Your task to perform on an android device: Search for "razer deathadder" on costco.com, select the first entry, add it to the cart, then select checkout. Image 0: 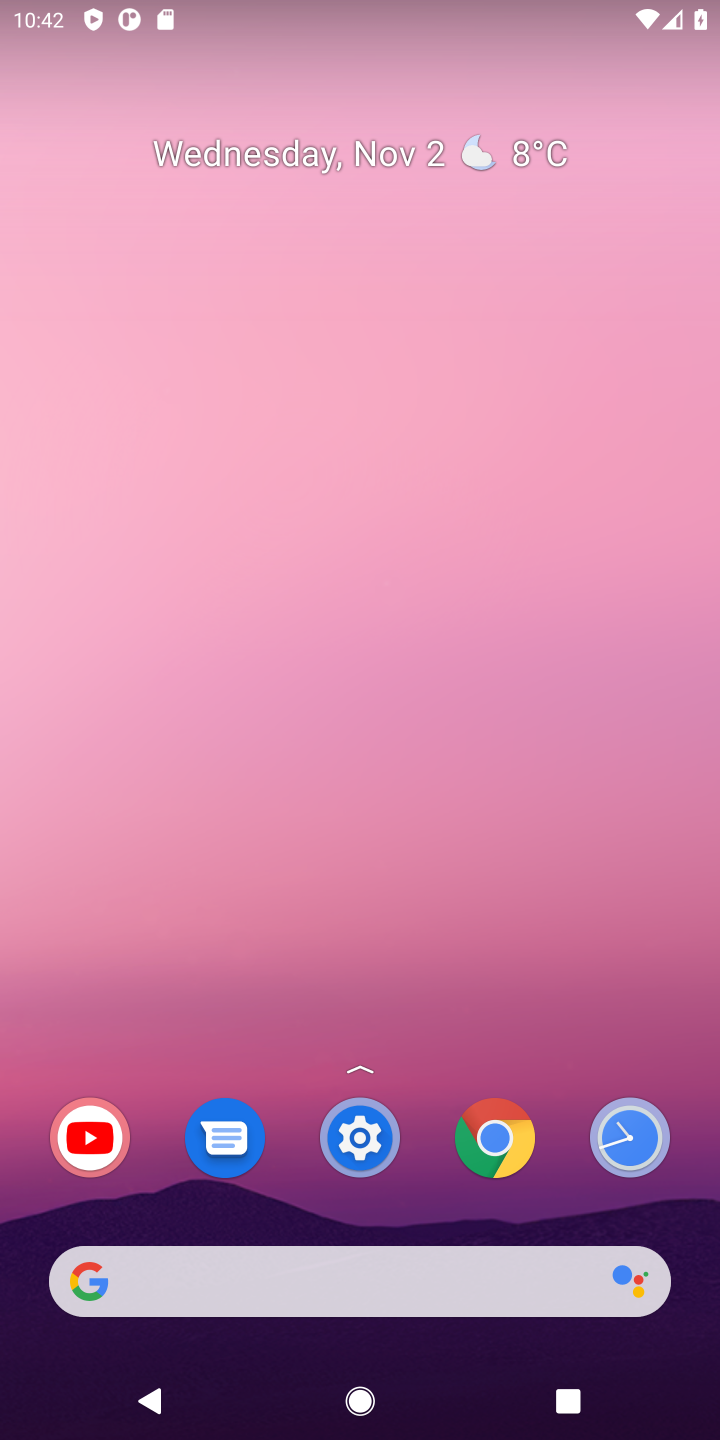
Step 0: click (509, 1127)
Your task to perform on an android device: Search for "razer deathadder" on costco.com, select the first entry, add it to the cart, then select checkout. Image 1: 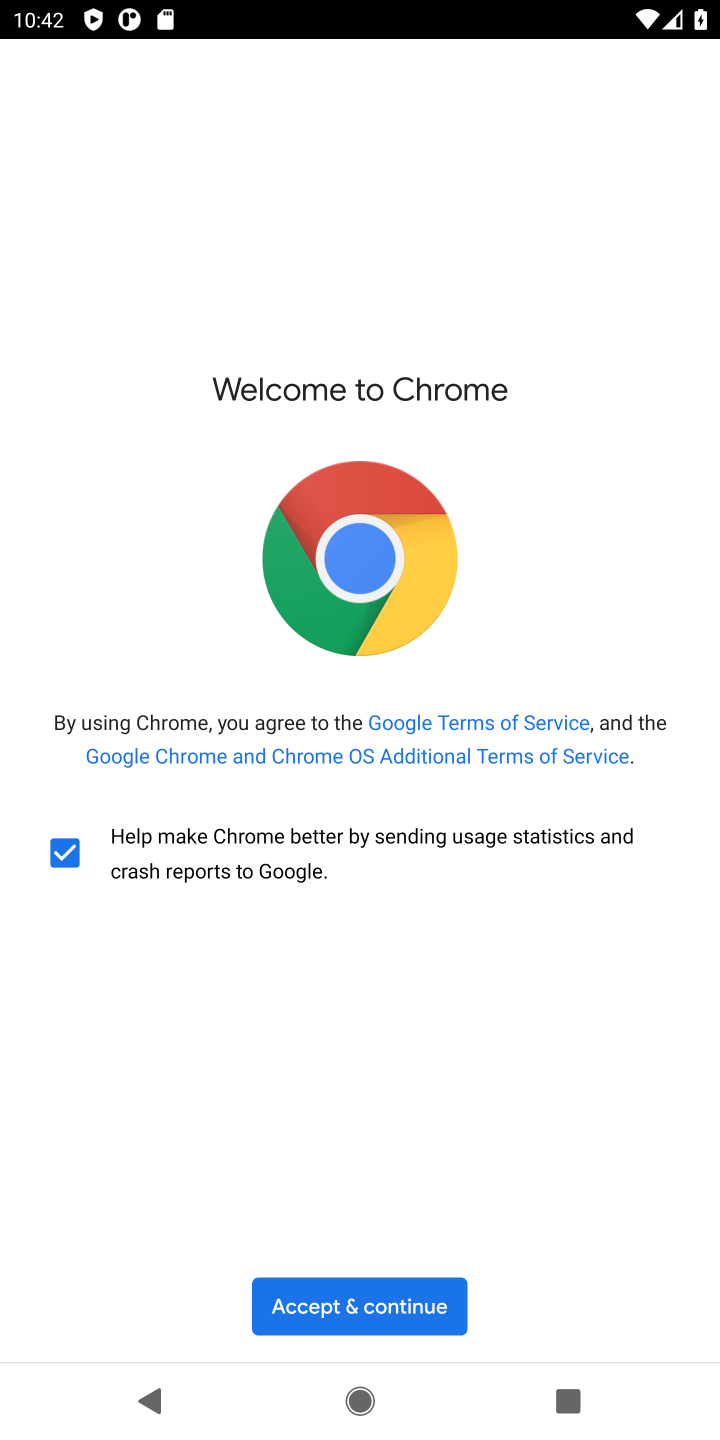
Step 1: click (311, 1311)
Your task to perform on an android device: Search for "razer deathadder" on costco.com, select the first entry, add it to the cart, then select checkout. Image 2: 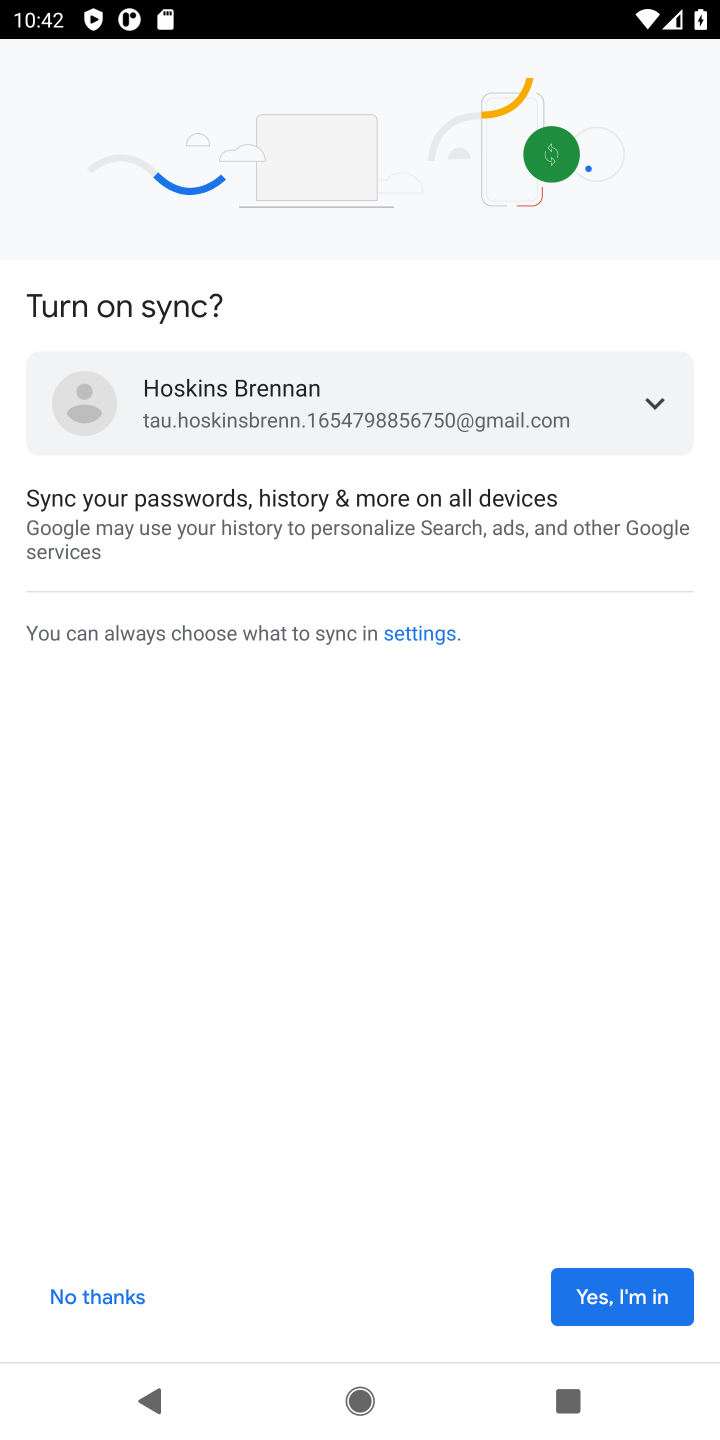
Step 2: click (668, 1285)
Your task to perform on an android device: Search for "razer deathadder" on costco.com, select the first entry, add it to the cart, then select checkout. Image 3: 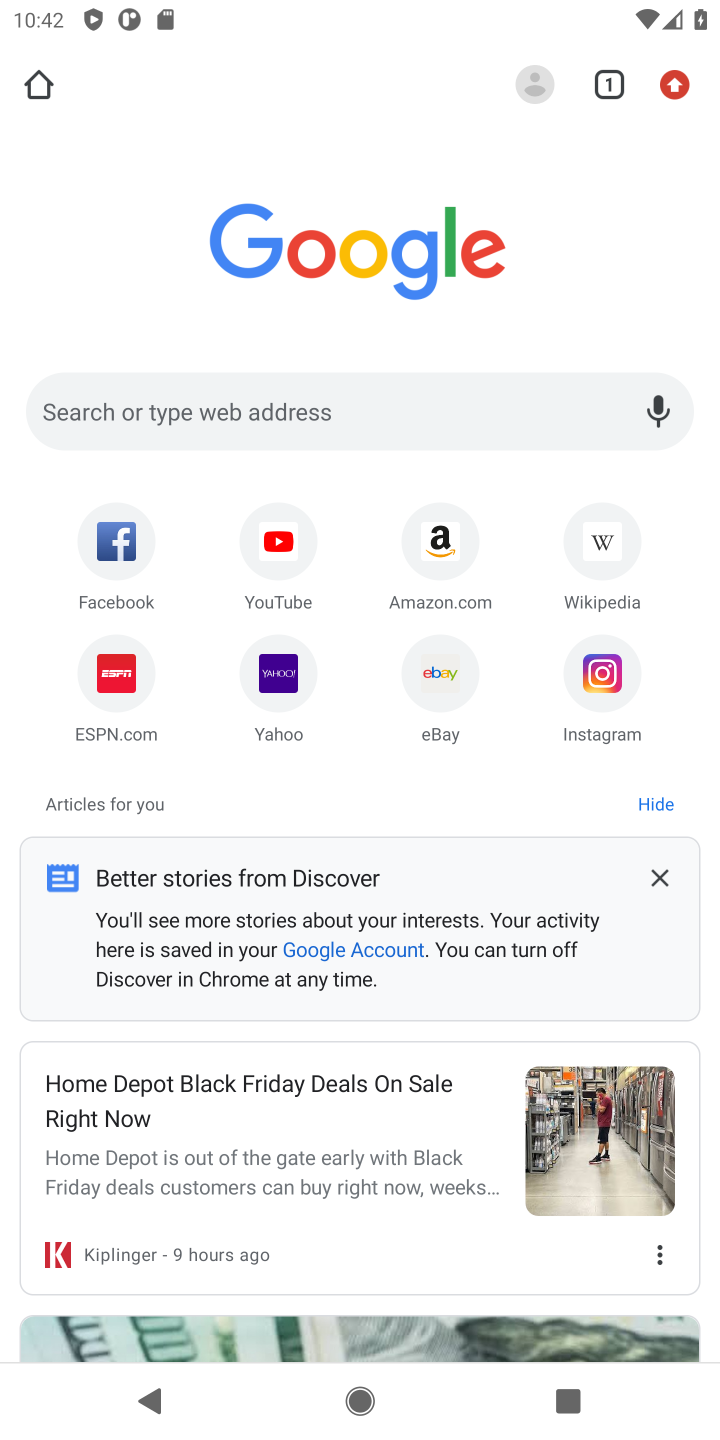
Step 3: click (389, 380)
Your task to perform on an android device: Search for "razer deathadder" on costco.com, select the first entry, add it to the cart, then select checkout. Image 4: 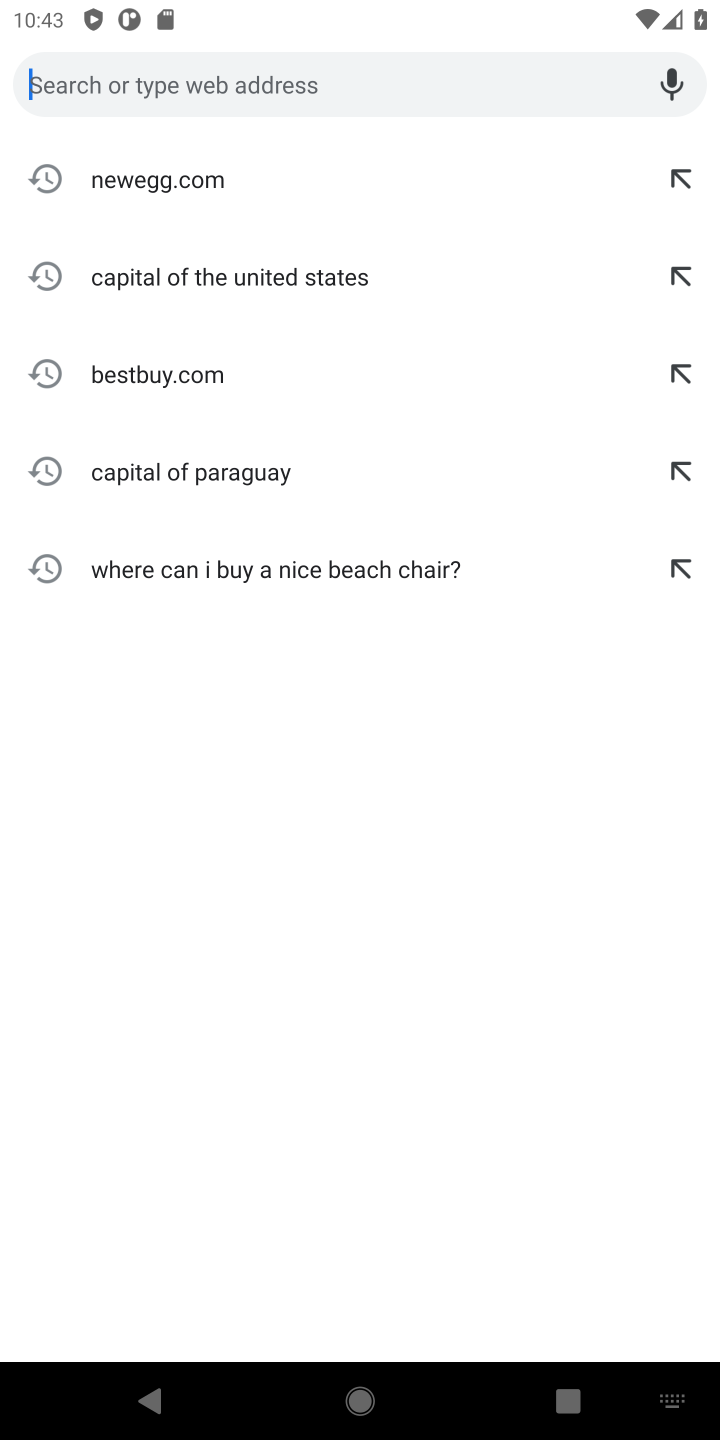
Step 4: type "costco"
Your task to perform on an android device: Search for "razer deathadder" on costco.com, select the first entry, add it to the cart, then select checkout. Image 5: 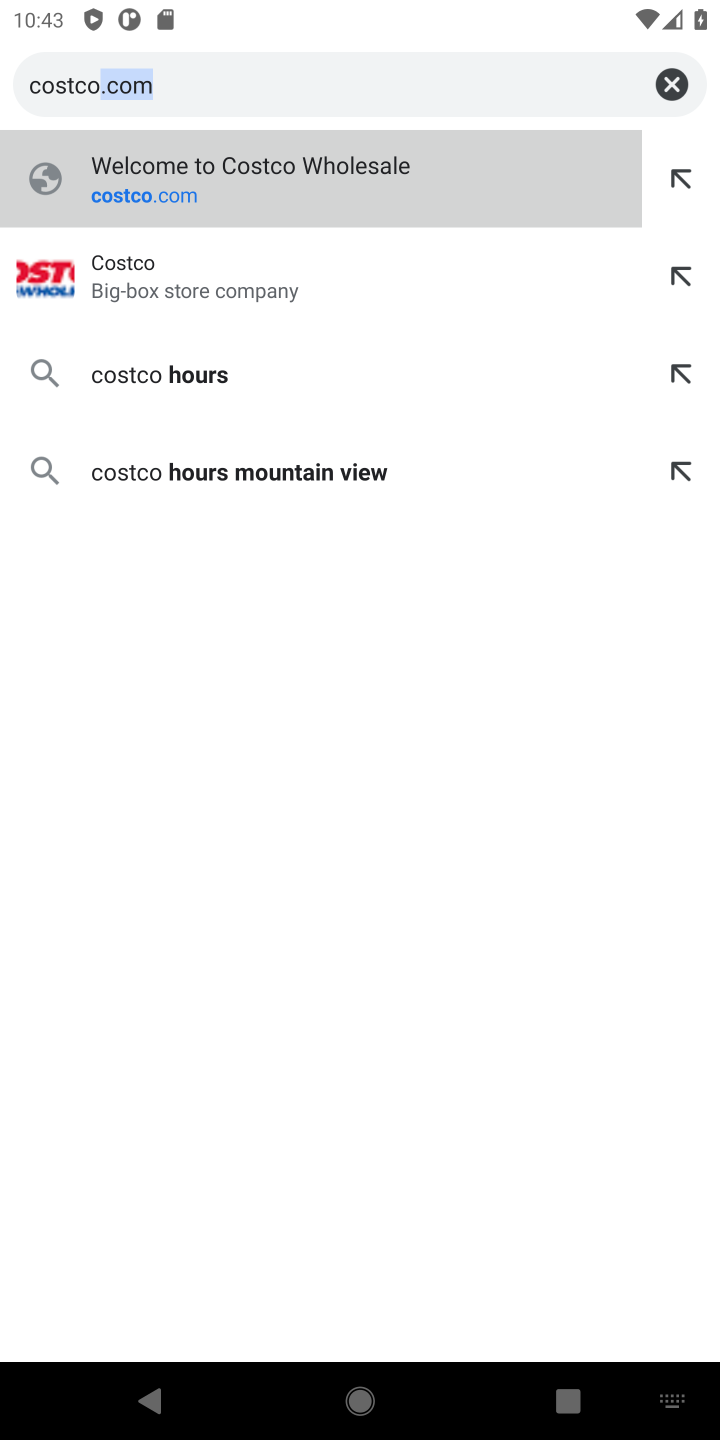
Step 5: click (210, 270)
Your task to perform on an android device: Search for "razer deathadder" on costco.com, select the first entry, add it to the cart, then select checkout. Image 6: 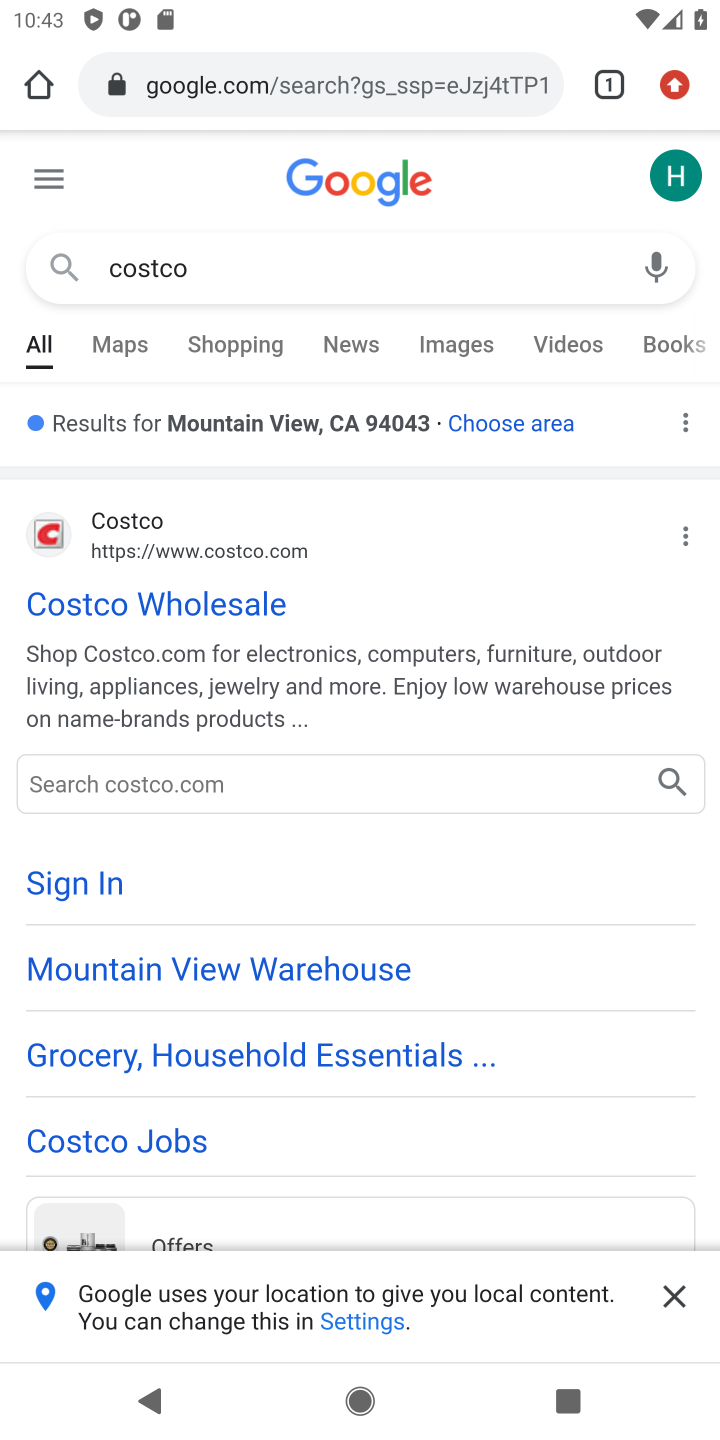
Step 6: click (128, 601)
Your task to perform on an android device: Search for "razer deathadder" on costco.com, select the first entry, add it to the cart, then select checkout. Image 7: 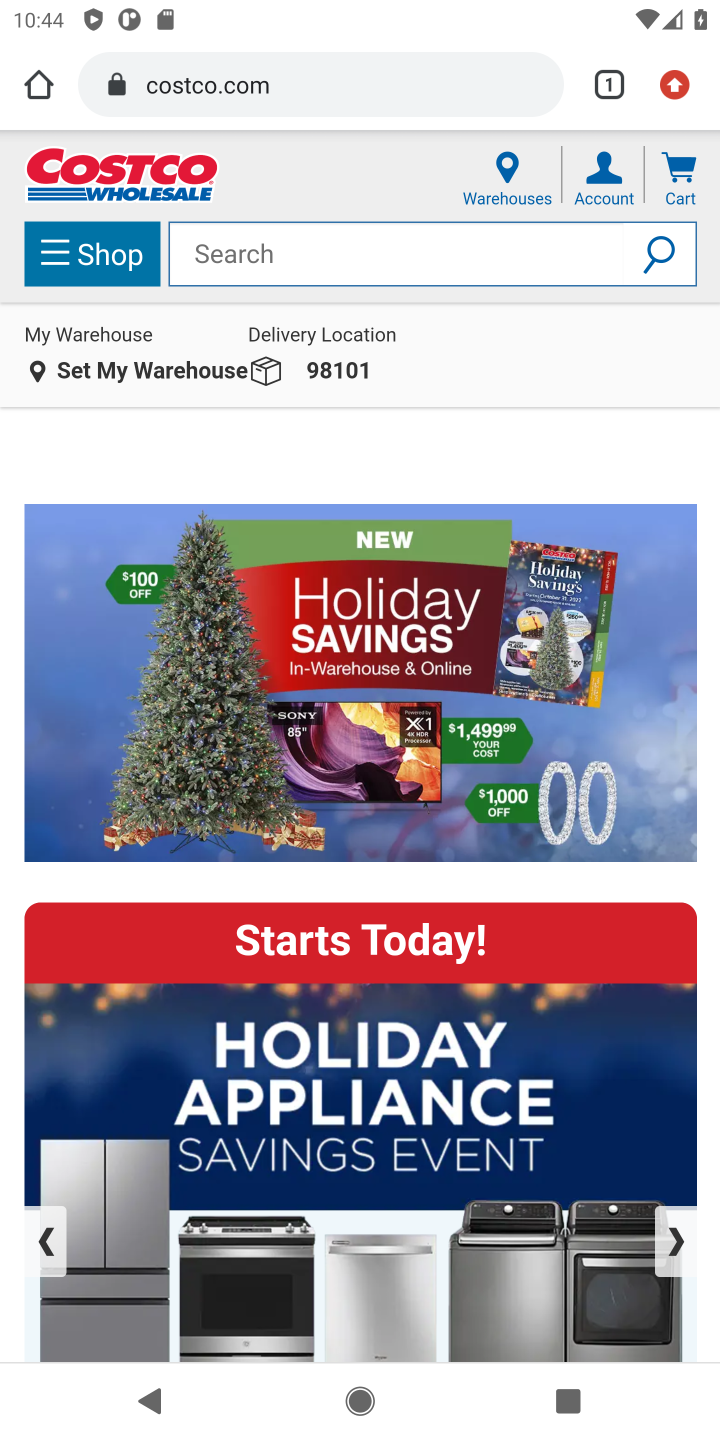
Step 7: click (545, 231)
Your task to perform on an android device: Search for "razer deathadder" on costco.com, select the first entry, add it to the cart, then select checkout. Image 8: 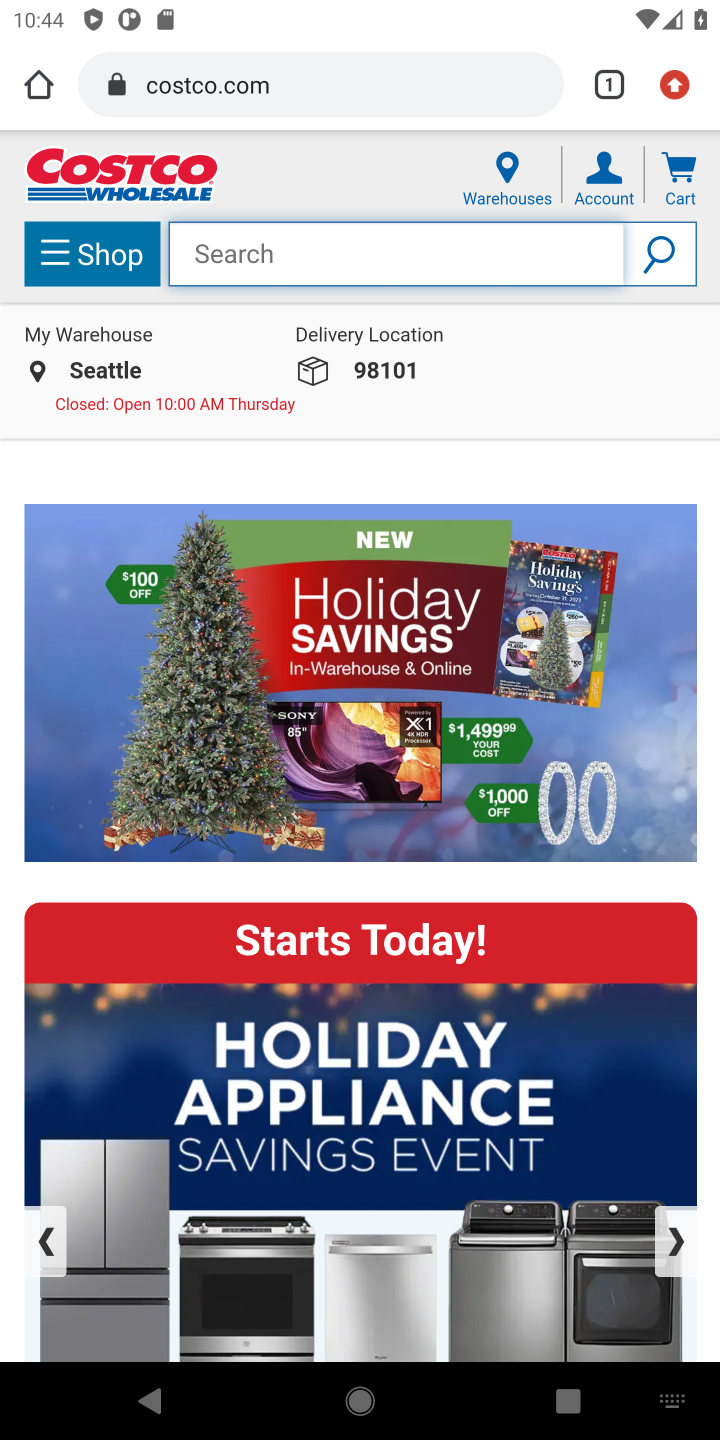
Step 8: type "razer deathadder"
Your task to perform on an android device: Search for "razer deathadder" on costco.com, select the first entry, add it to the cart, then select checkout. Image 9: 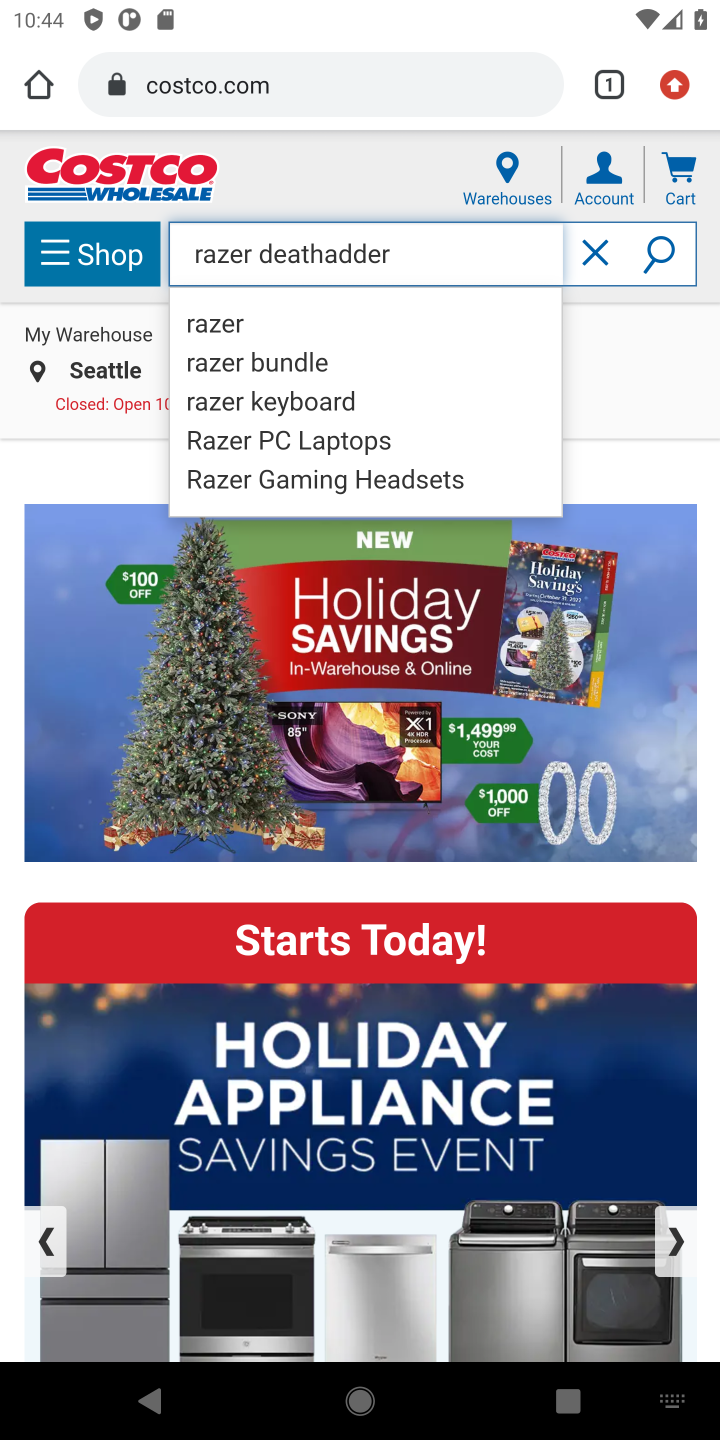
Step 9: click (658, 252)
Your task to perform on an android device: Search for "razer deathadder" on costco.com, select the first entry, add it to the cart, then select checkout. Image 10: 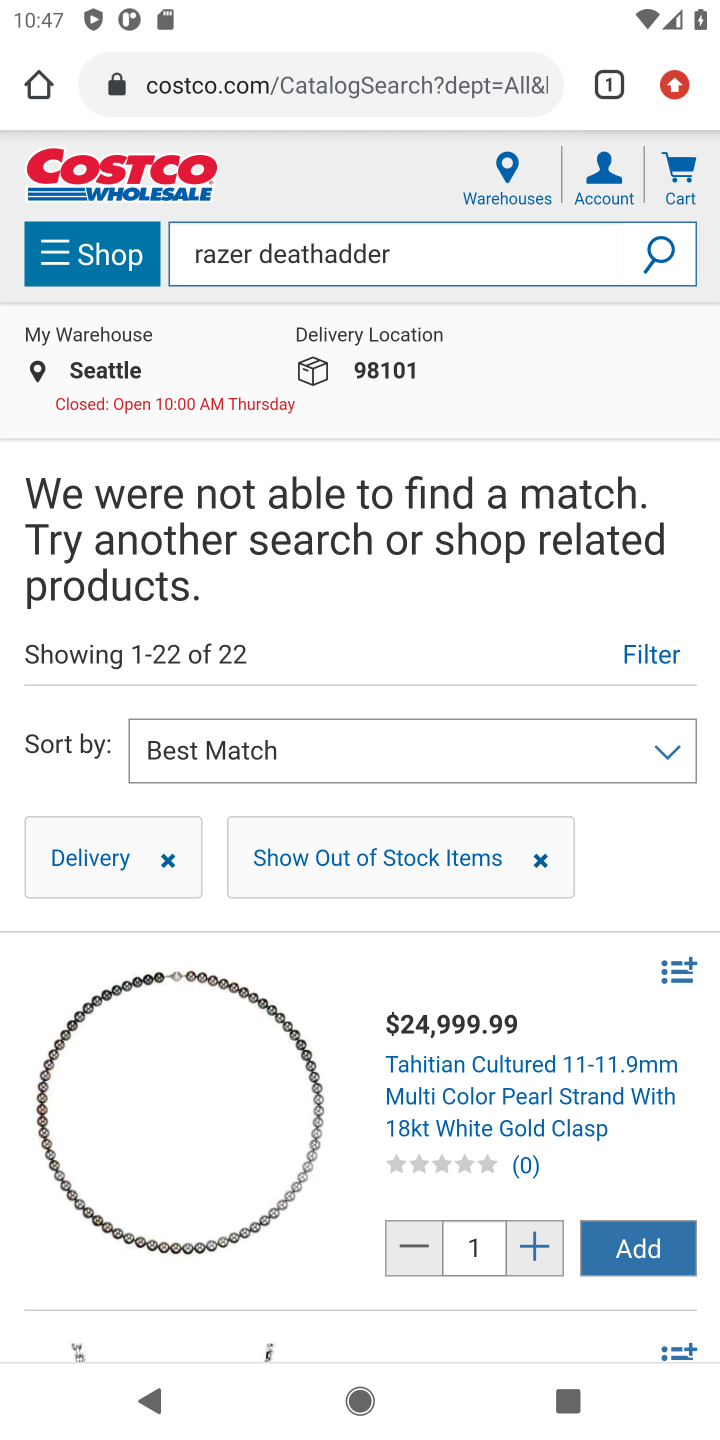
Step 10: task complete